Your task to perform on an android device: Open Google Chrome and open the bookmarks view Image 0: 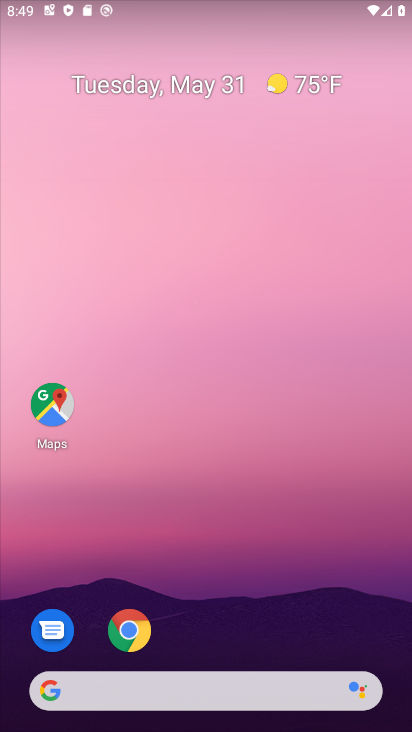
Step 0: drag from (195, 674) to (243, 317)
Your task to perform on an android device: Open Google Chrome and open the bookmarks view Image 1: 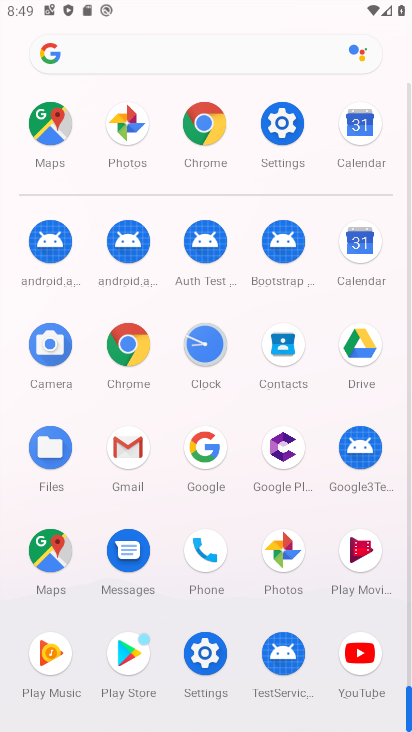
Step 1: click (128, 344)
Your task to perform on an android device: Open Google Chrome and open the bookmarks view Image 2: 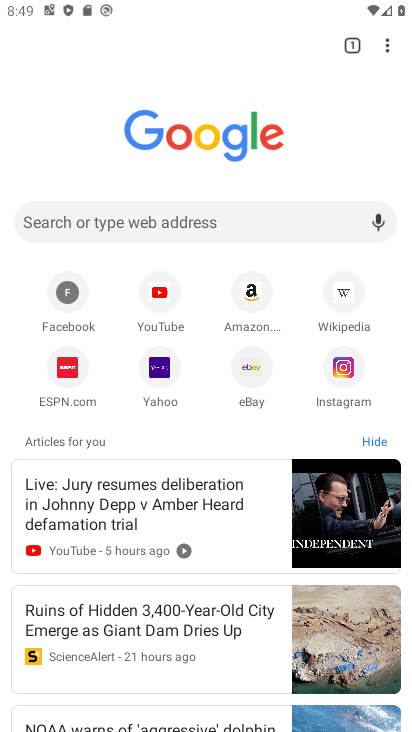
Step 2: click (392, 47)
Your task to perform on an android device: Open Google Chrome and open the bookmarks view Image 3: 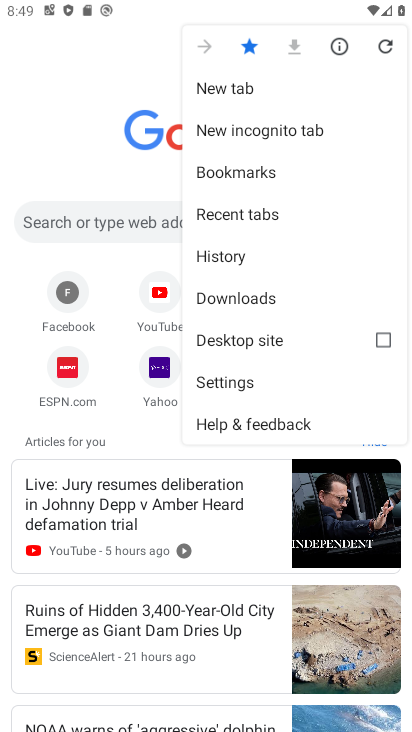
Step 3: click (247, 166)
Your task to perform on an android device: Open Google Chrome and open the bookmarks view Image 4: 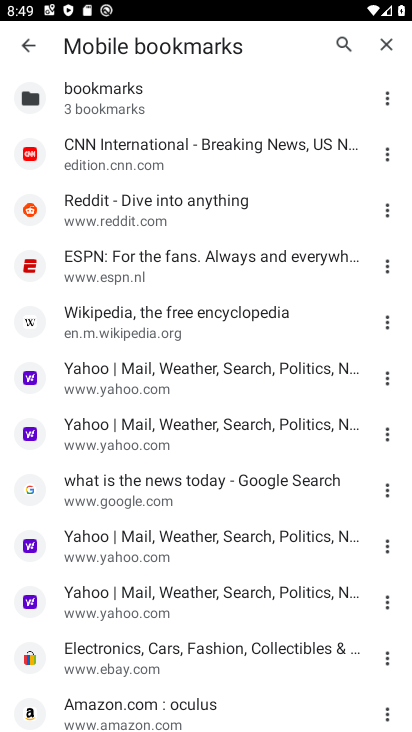
Step 4: task complete